Your task to perform on an android device: change the clock display to show seconds Image 0: 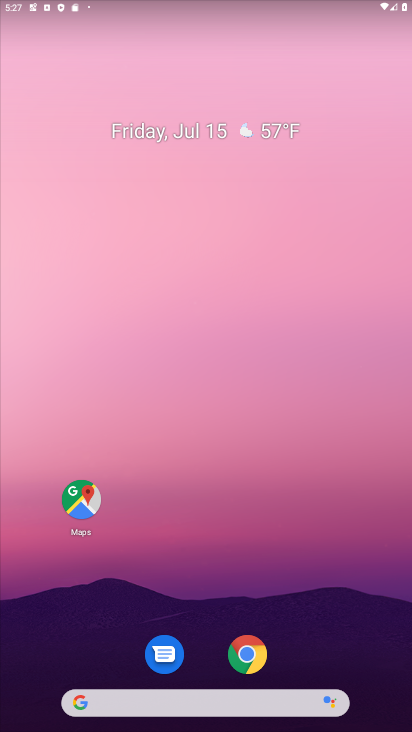
Step 0: drag from (213, 636) to (222, 200)
Your task to perform on an android device: change the clock display to show seconds Image 1: 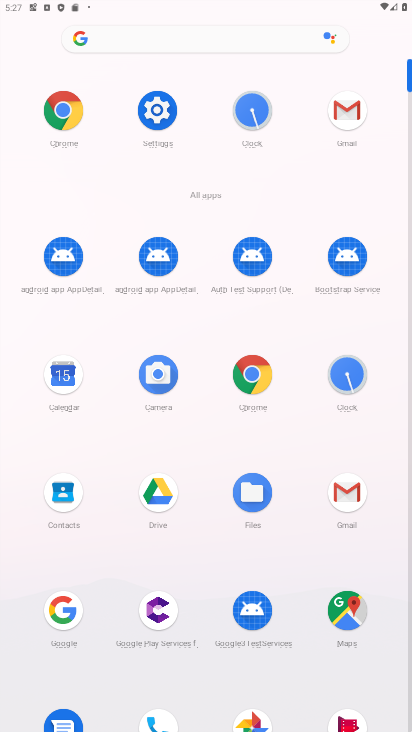
Step 1: click (253, 130)
Your task to perform on an android device: change the clock display to show seconds Image 2: 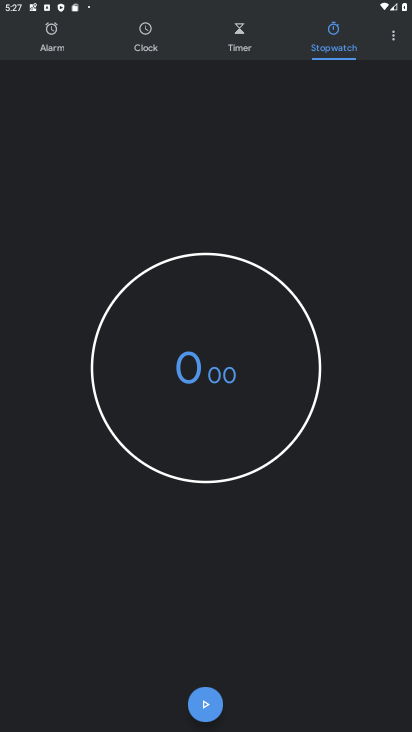
Step 2: click (399, 43)
Your task to perform on an android device: change the clock display to show seconds Image 3: 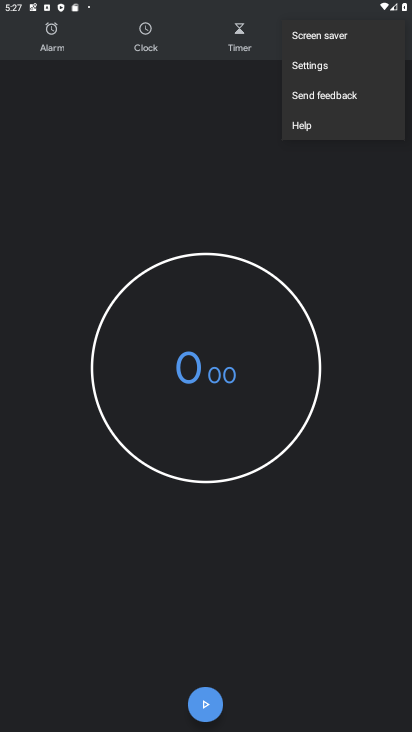
Step 3: click (347, 65)
Your task to perform on an android device: change the clock display to show seconds Image 4: 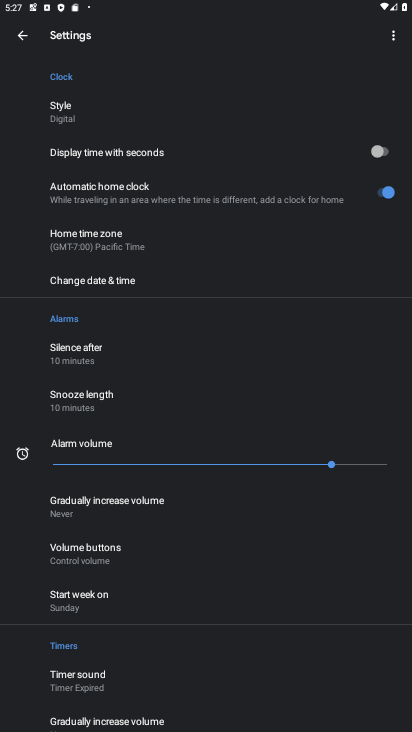
Step 4: click (384, 156)
Your task to perform on an android device: change the clock display to show seconds Image 5: 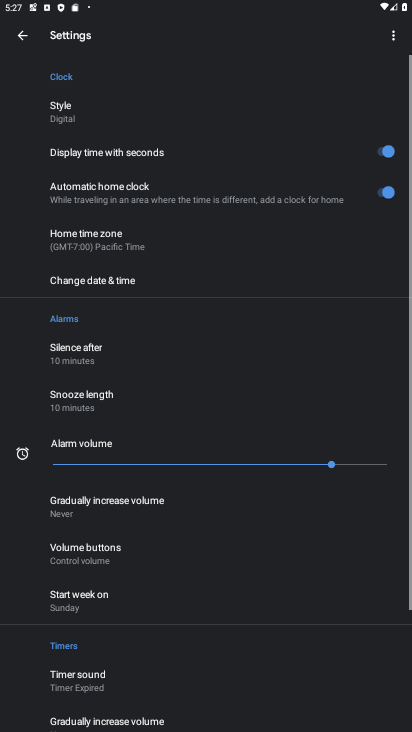
Step 5: task complete